Your task to perform on an android device: Set the phone to "Do not disturb". Image 0: 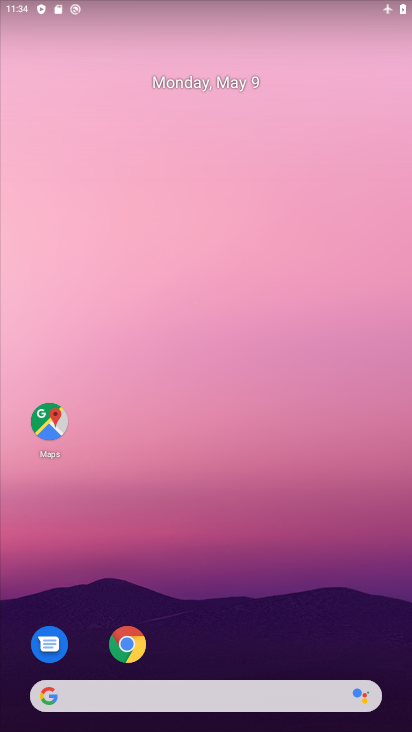
Step 0: drag from (206, 650) to (219, 225)
Your task to perform on an android device: Set the phone to "Do not disturb". Image 1: 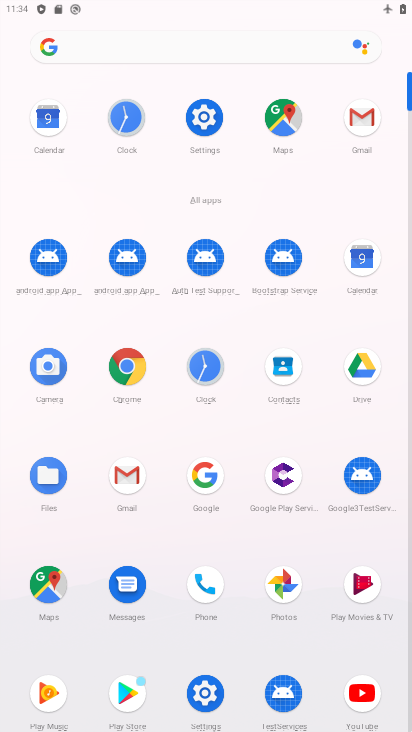
Step 1: click (202, 128)
Your task to perform on an android device: Set the phone to "Do not disturb". Image 2: 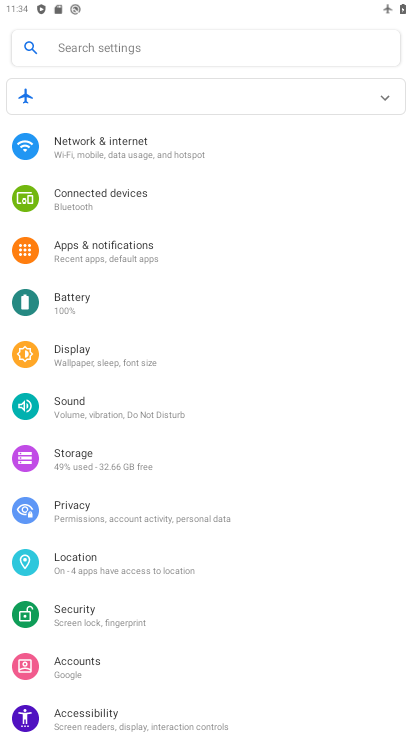
Step 2: click (104, 420)
Your task to perform on an android device: Set the phone to "Do not disturb". Image 3: 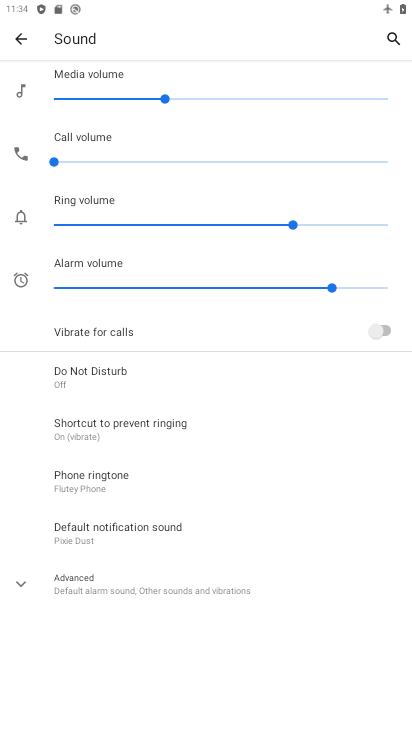
Step 3: click (119, 382)
Your task to perform on an android device: Set the phone to "Do not disturb". Image 4: 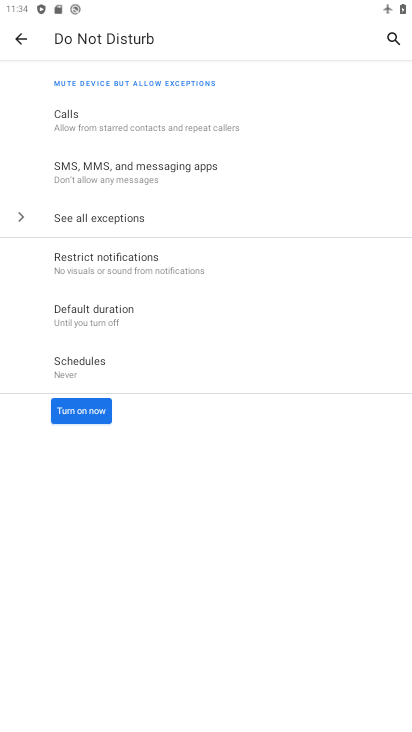
Step 4: click (75, 418)
Your task to perform on an android device: Set the phone to "Do not disturb". Image 5: 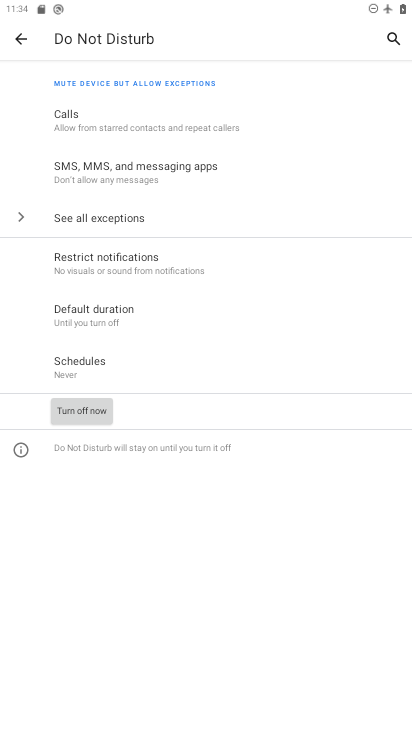
Step 5: task complete